Your task to perform on an android device: set the stopwatch Image 0: 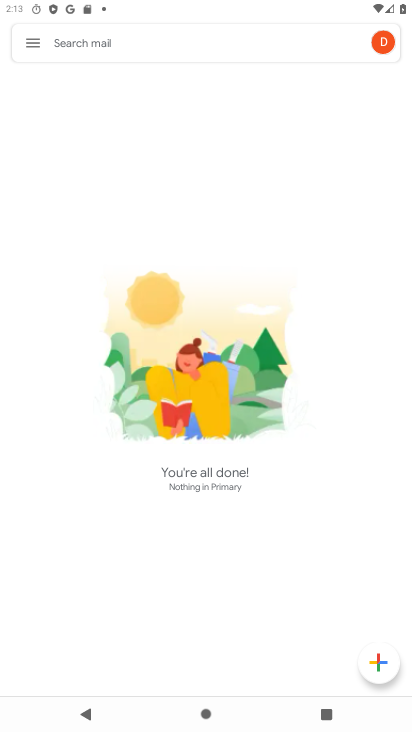
Step 0: press home button
Your task to perform on an android device: set the stopwatch Image 1: 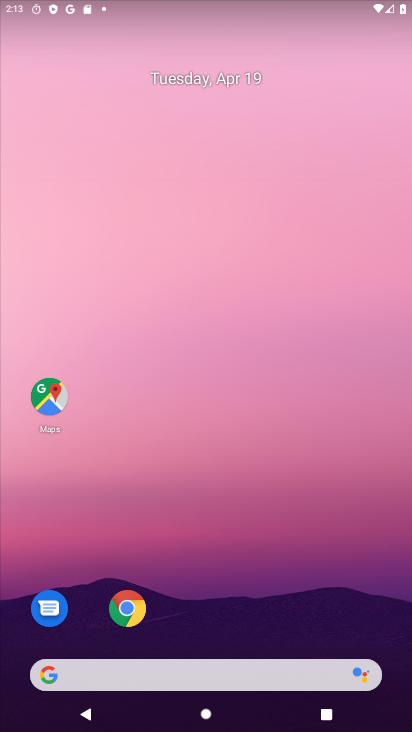
Step 1: drag from (322, 615) to (335, 22)
Your task to perform on an android device: set the stopwatch Image 2: 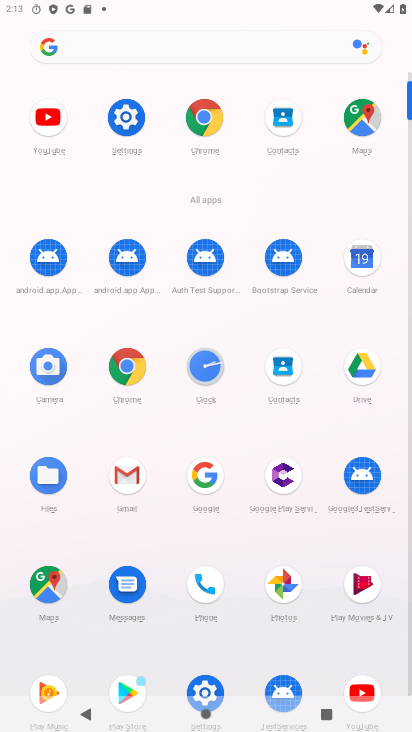
Step 2: click (216, 367)
Your task to perform on an android device: set the stopwatch Image 3: 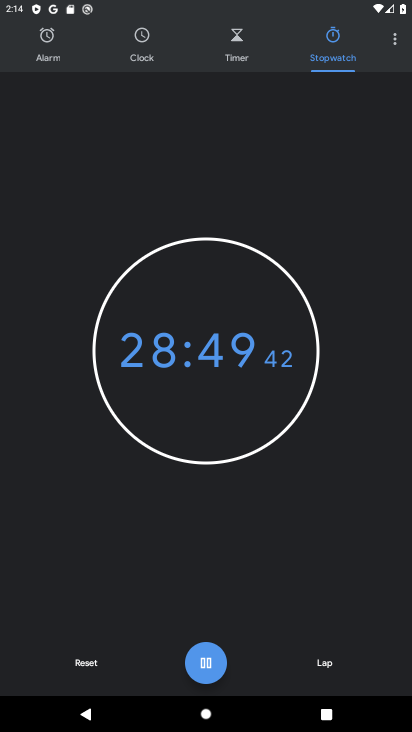
Step 3: task complete